Your task to perform on an android device: Search for flights from Zurich to Buenos aires Image 0: 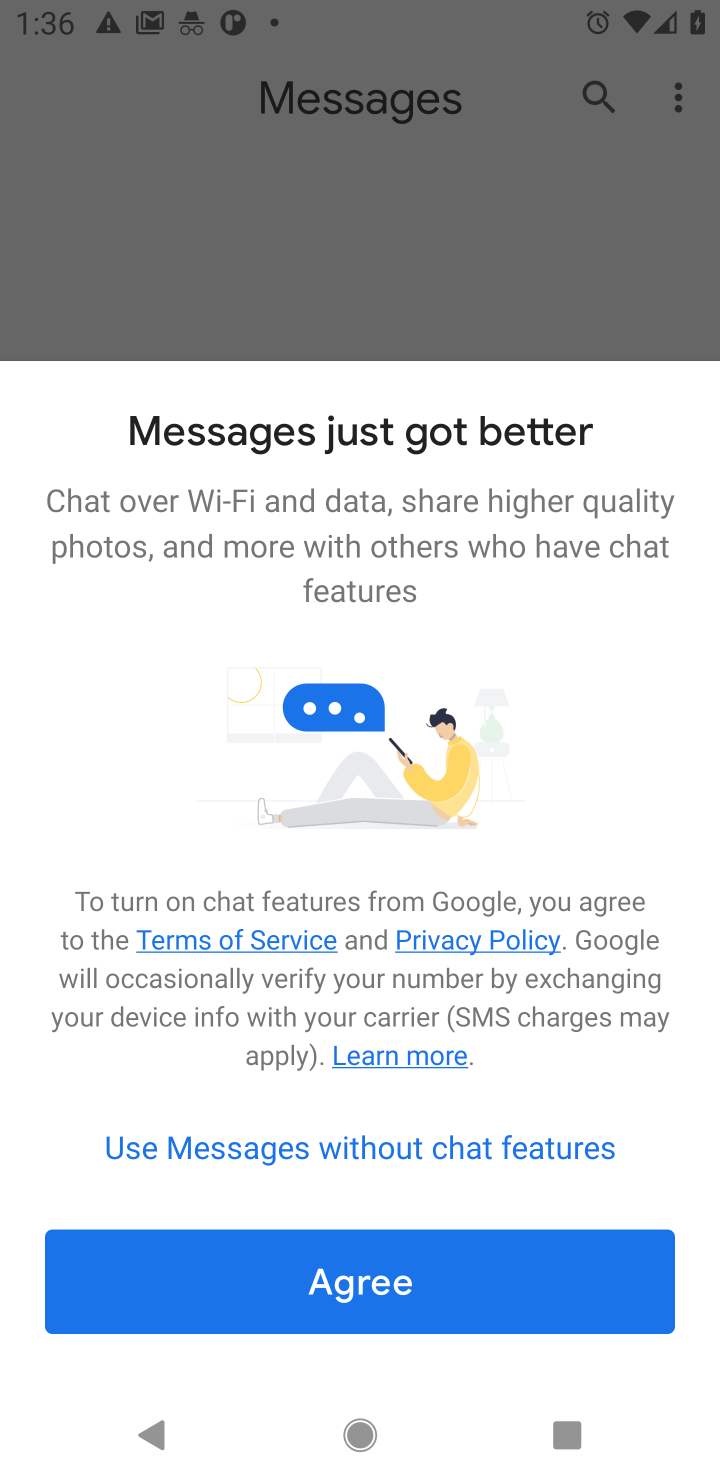
Step 0: press home button
Your task to perform on an android device: Search for flights from Zurich to Buenos aires Image 1: 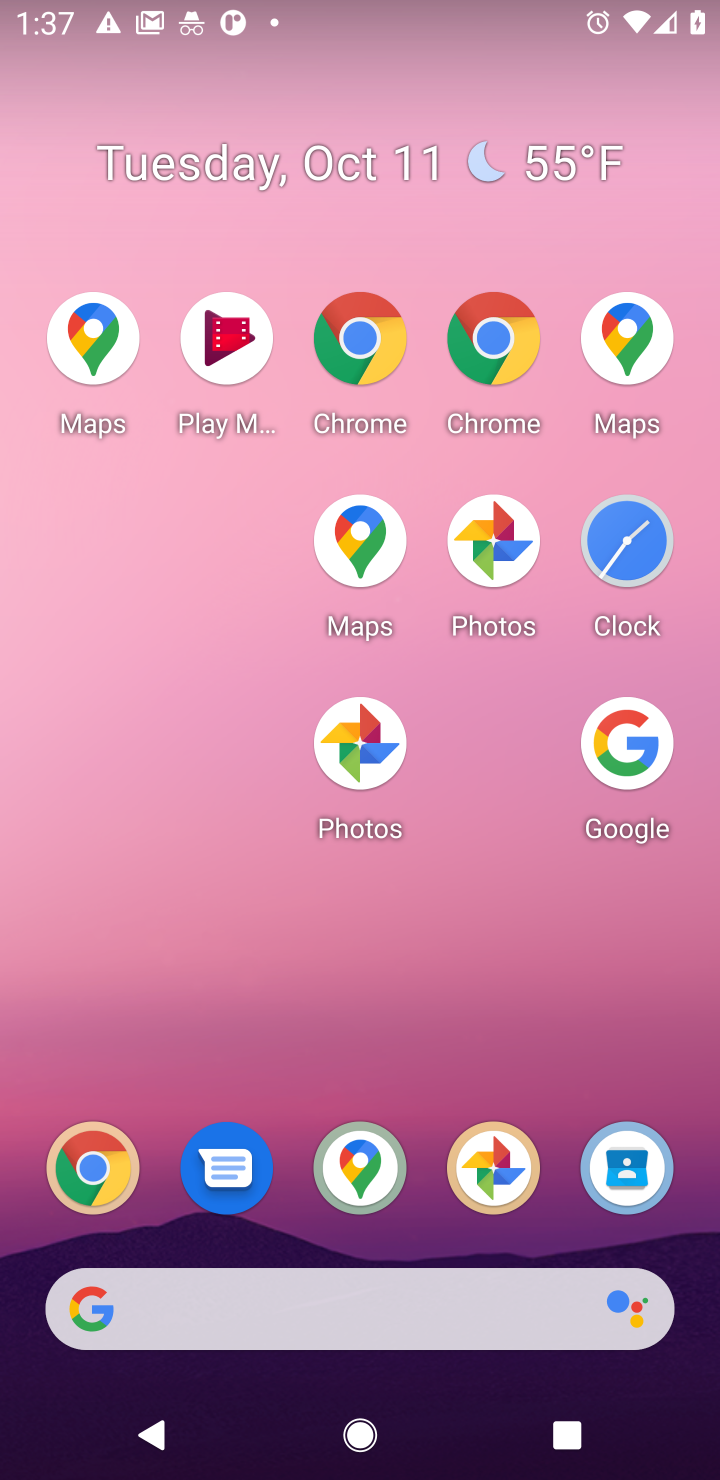
Step 1: click (642, 777)
Your task to perform on an android device: Search for flights from Zurich to Buenos aires Image 2: 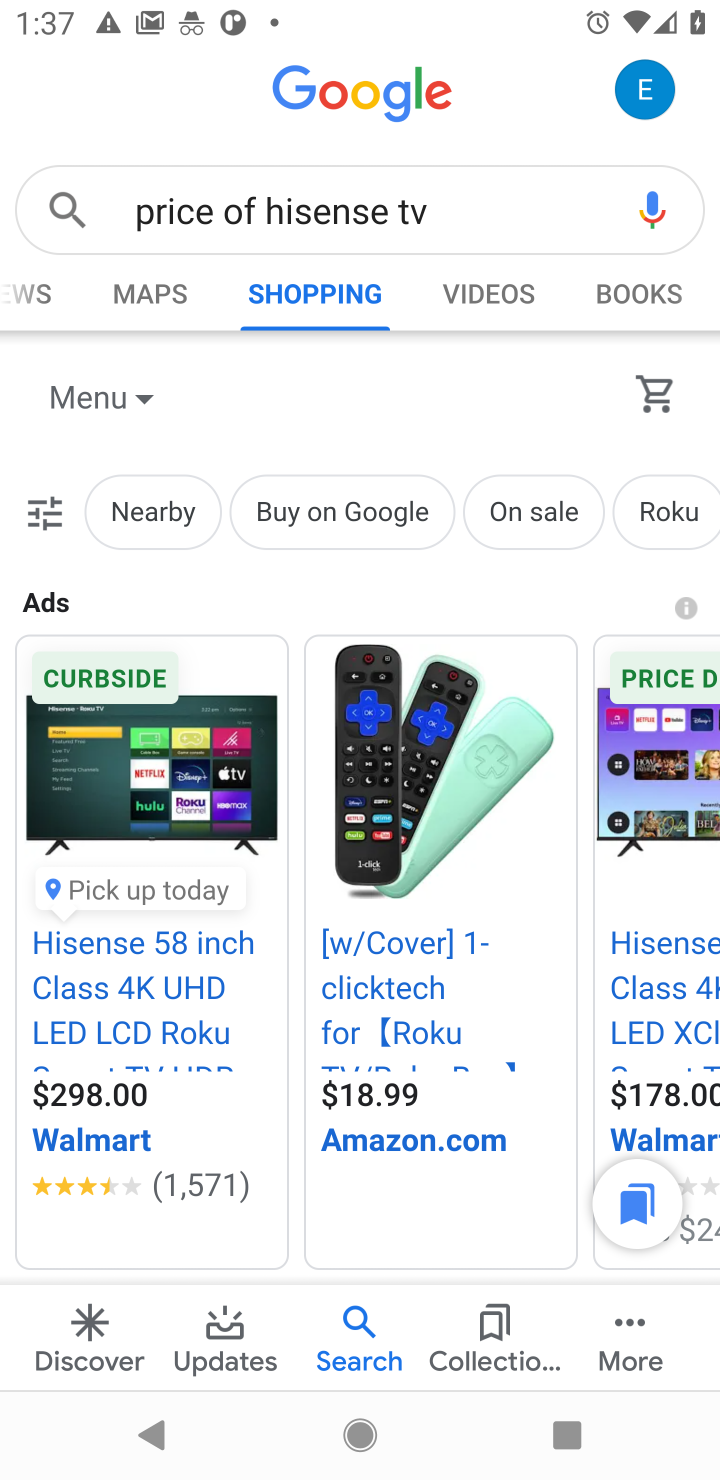
Step 2: click (500, 204)
Your task to perform on an android device: Search for flights from Zurich to Buenos aires Image 3: 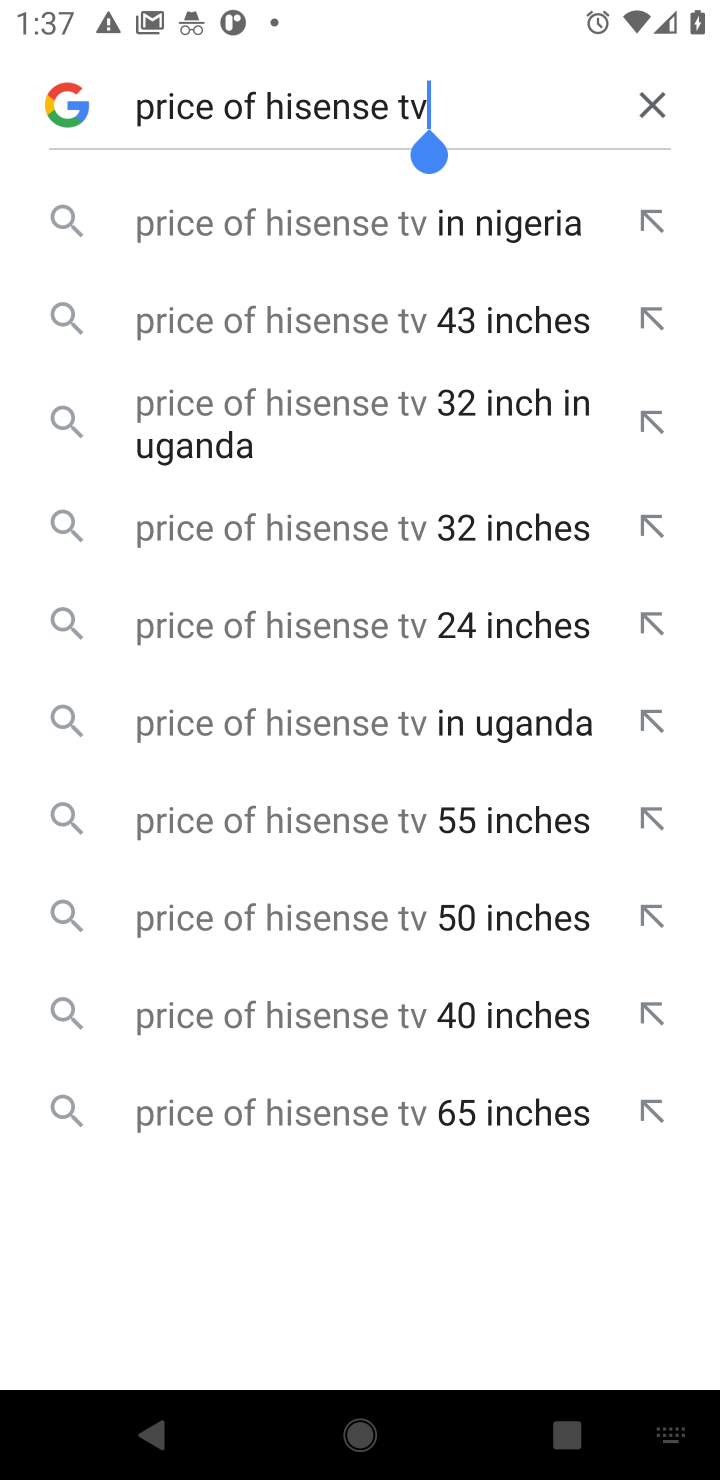
Step 3: click (659, 113)
Your task to perform on an android device: Search for flights from Zurich to Buenos aires Image 4: 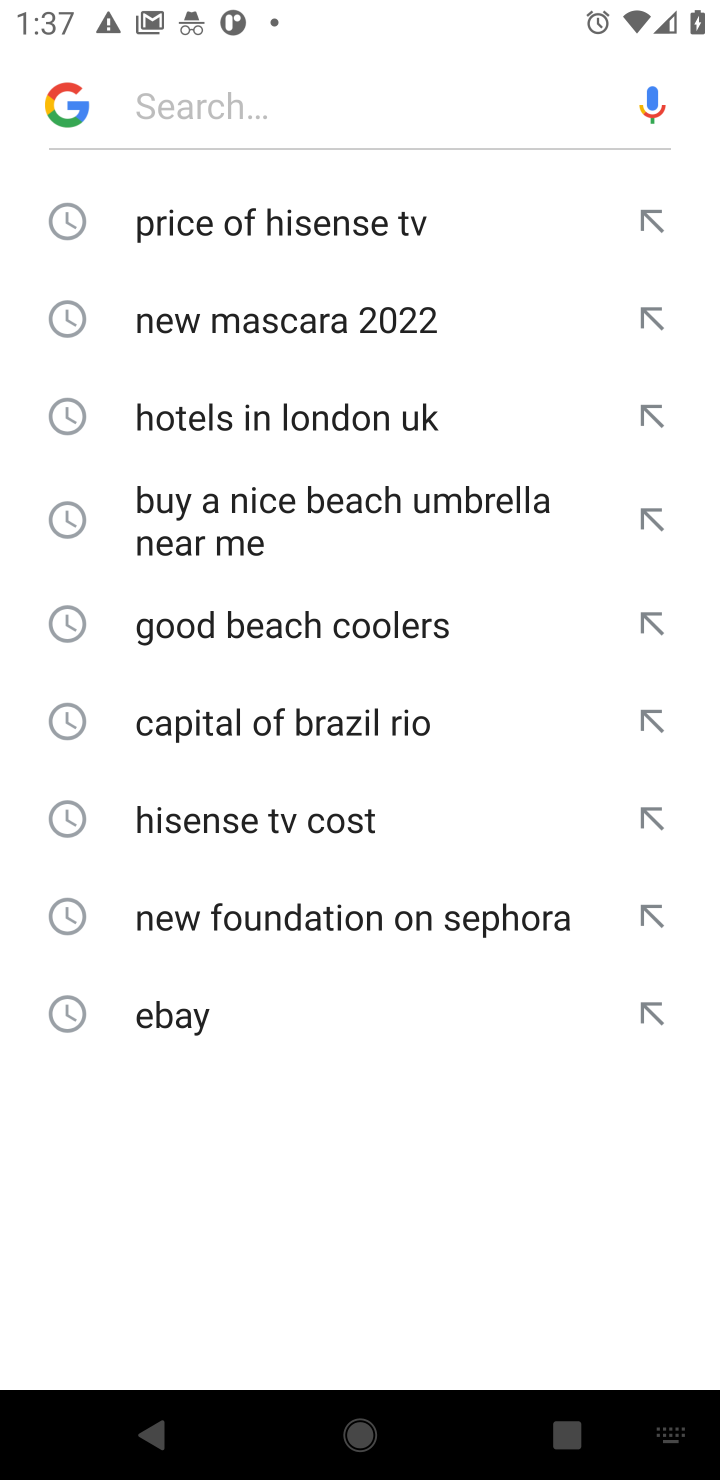
Step 4: type "flights from Zurich to Buenos aires"
Your task to perform on an android device: Search for flights from Zurich to Buenos aires Image 5: 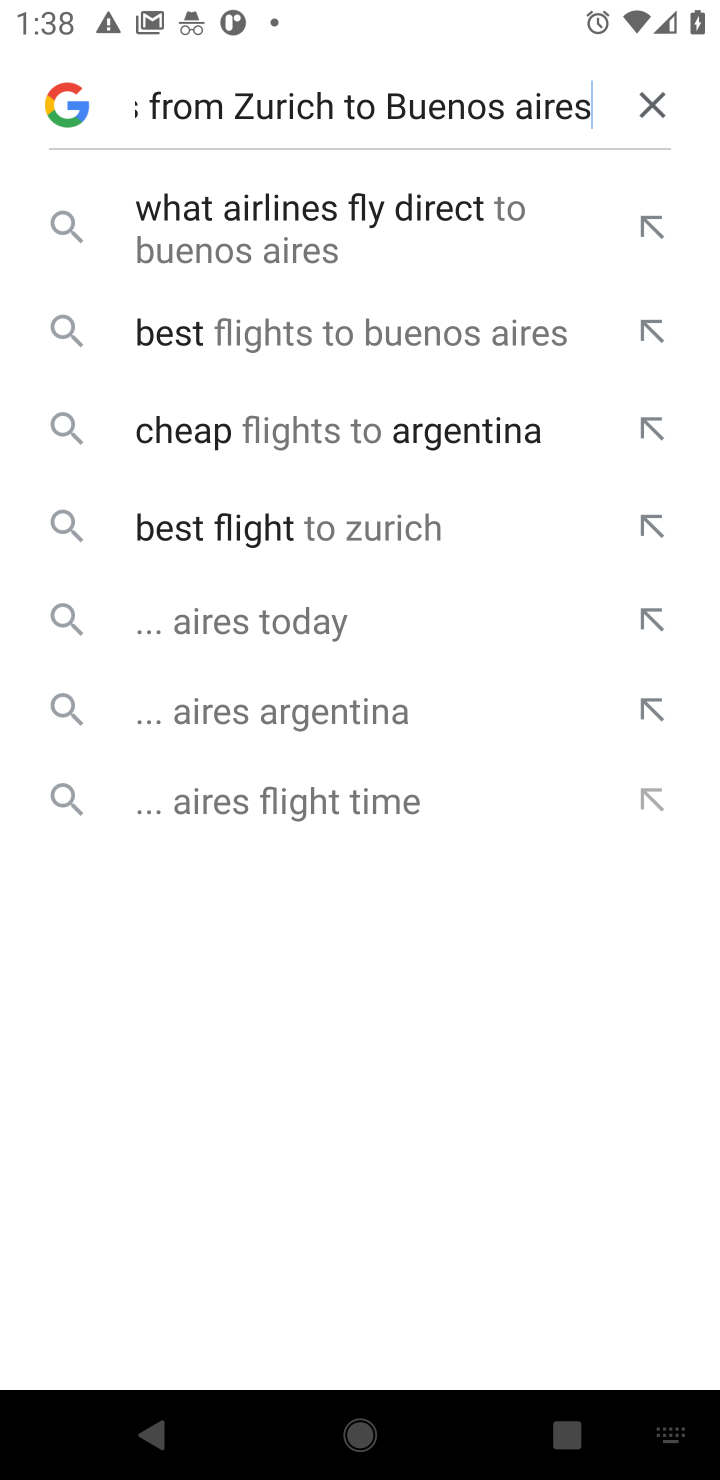
Step 5: click (473, 222)
Your task to perform on an android device: Search for flights from Zurich to Buenos aires Image 6: 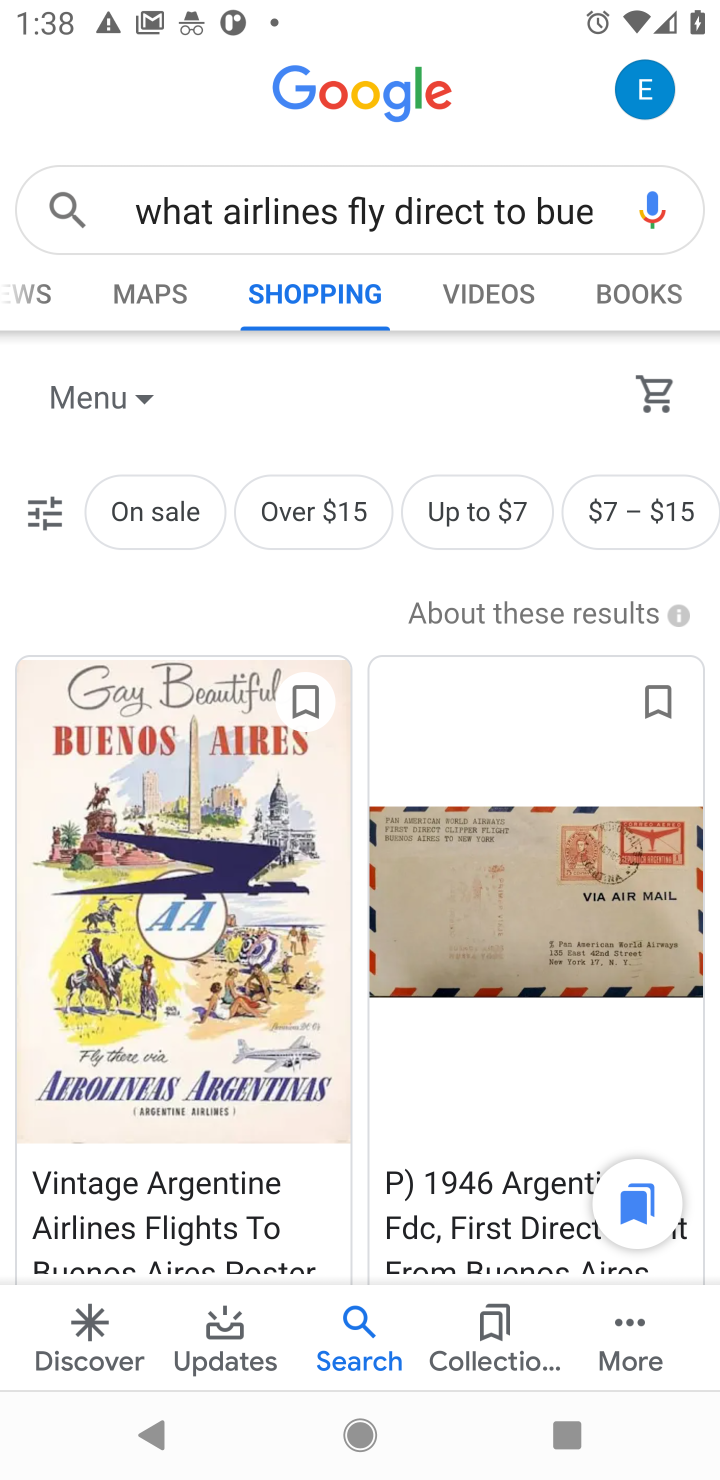
Step 6: drag from (173, 295) to (658, 328)
Your task to perform on an android device: Search for flights from Zurich to Buenos aires Image 7: 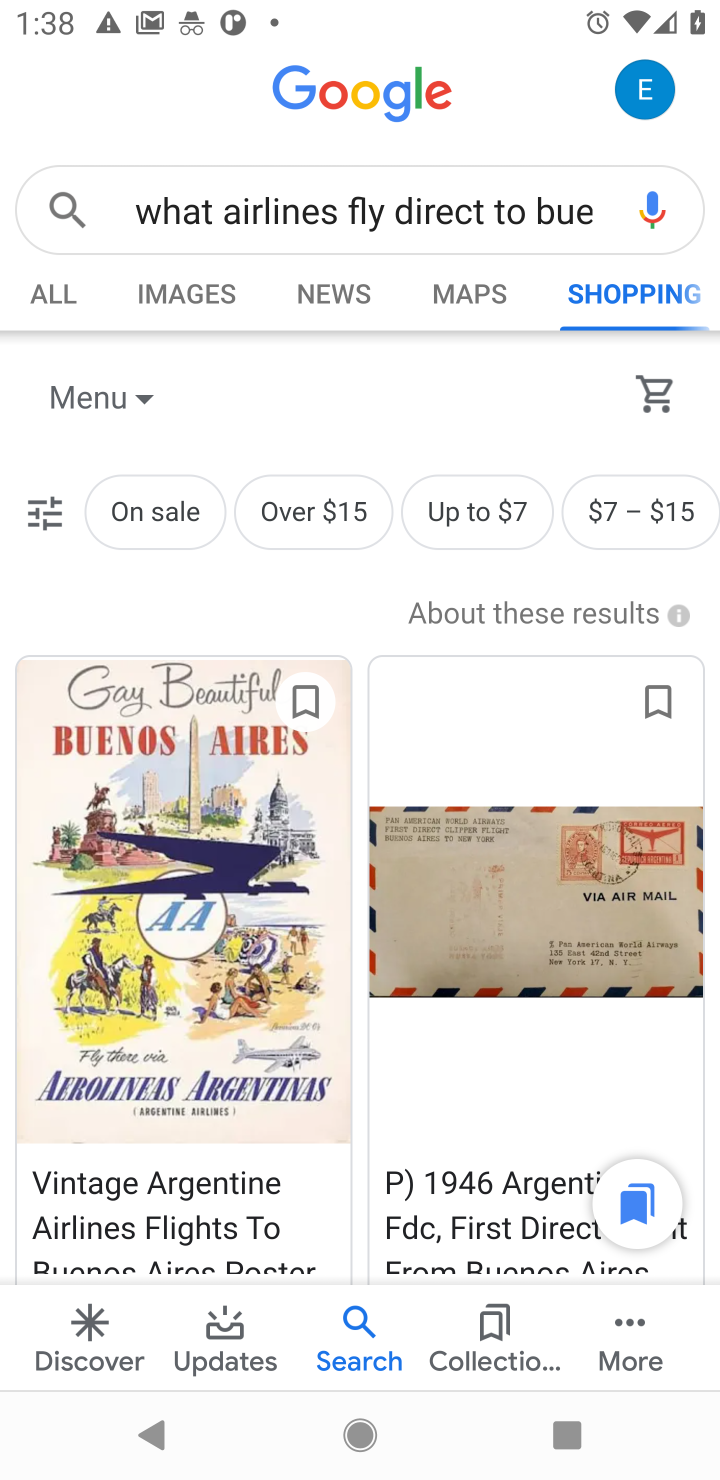
Step 7: click (68, 298)
Your task to perform on an android device: Search for flights from Zurich to Buenos aires Image 8: 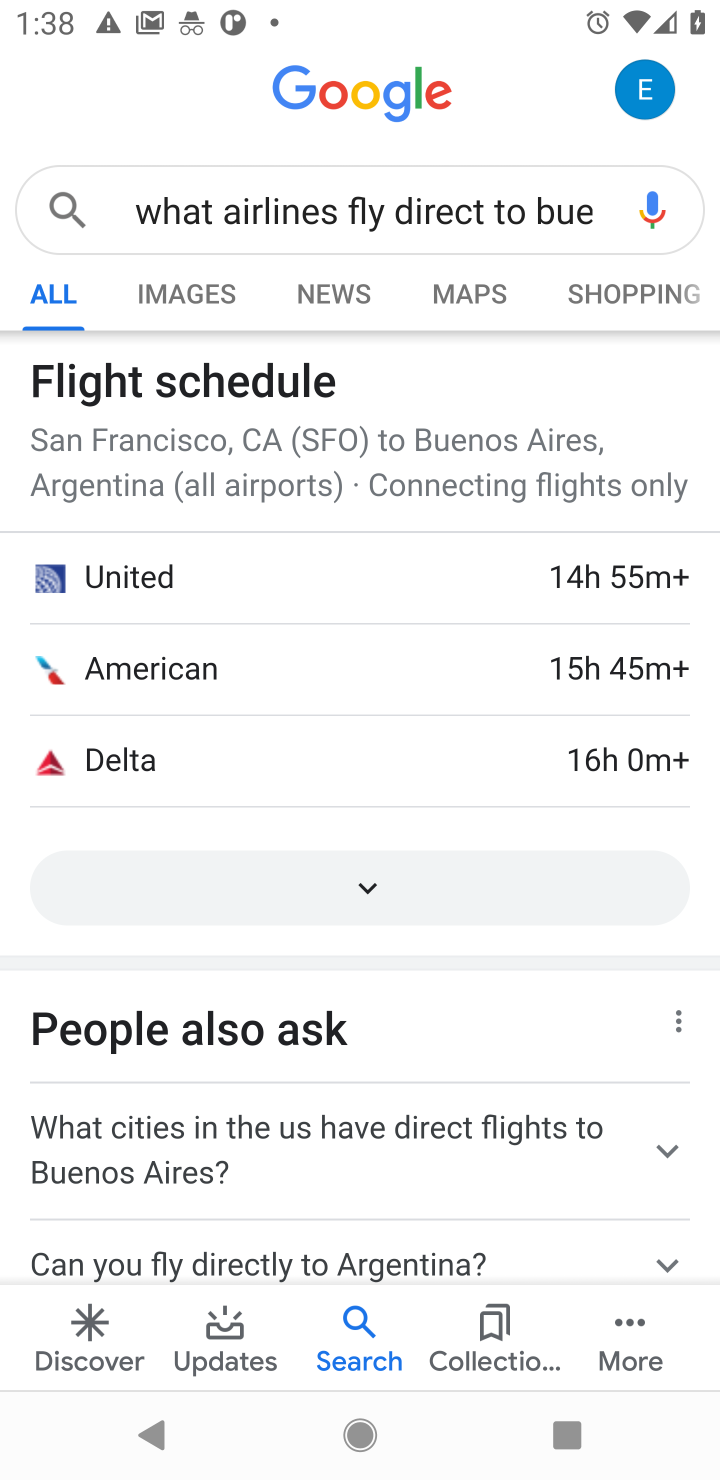
Step 8: task complete